Your task to perform on an android device: set the timer Image 0: 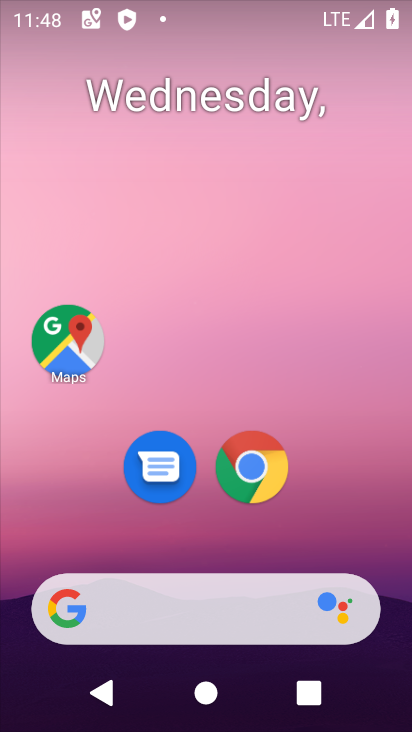
Step 0: drag from (182, 585) to (295, 149)
Your task to perform on an android device: set the timer Image 1: 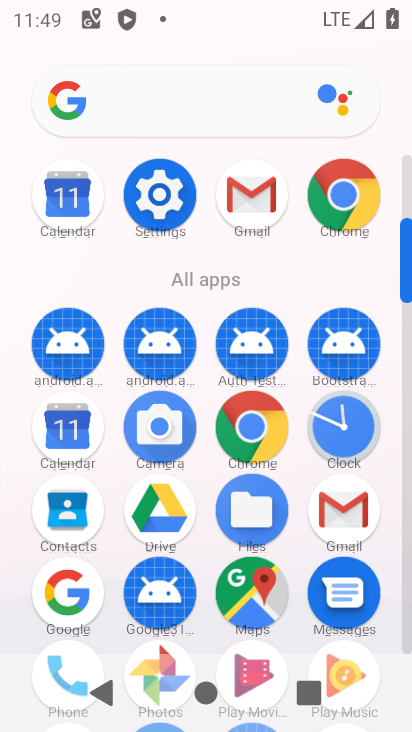
Step 1: click (348, 445)
Your task to perform on an android device: set the timer Image 2: 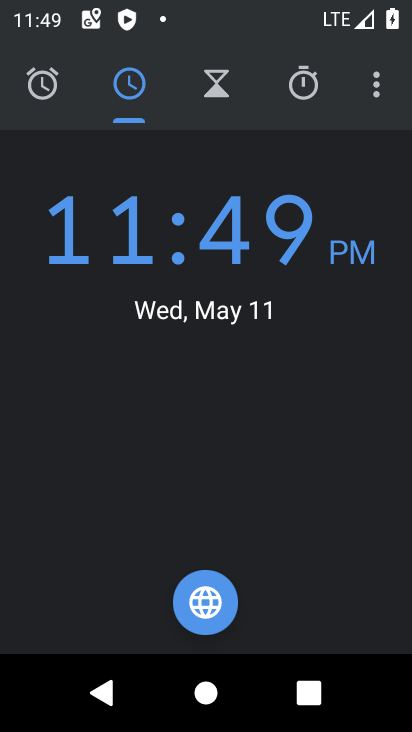
Step 2: click (213, 94)
Your task to perform on an android device: set the timer Image 3: 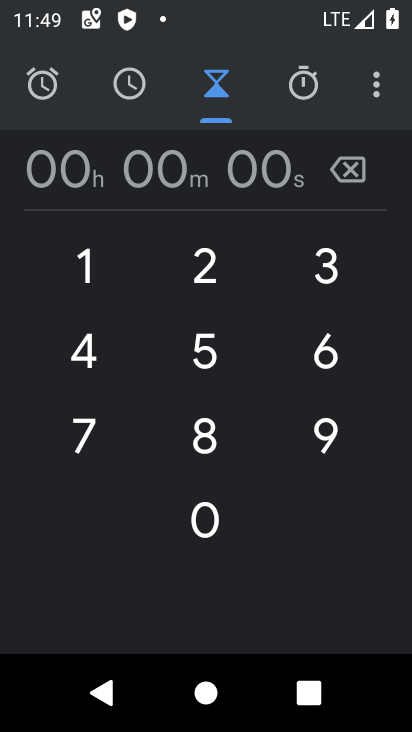
Step 3: click (90, 281)
Your task to perform on an android device: set the timer Image 4: 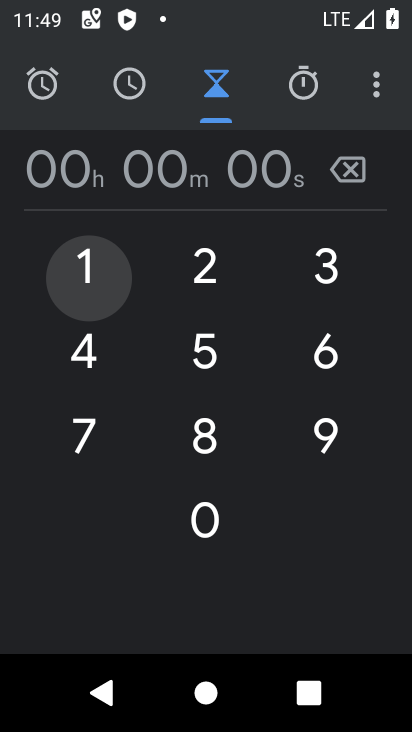
Step 4: click (90, 281)
Your task to perform on an android device: set the timer Image 5: 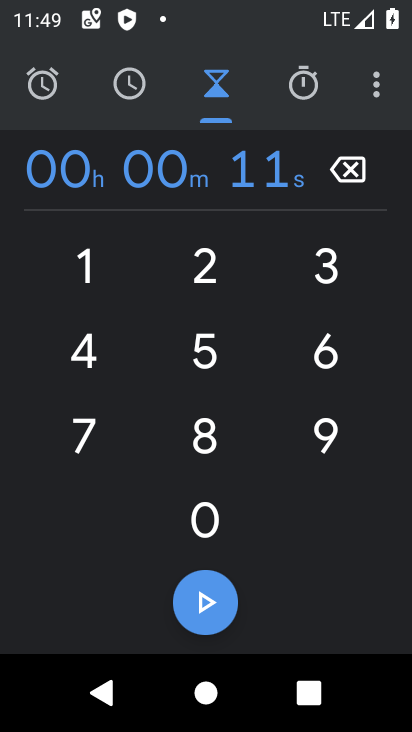
Step 5: click (90, 281)
Your task to perform on an android device: set the timer Image 6: 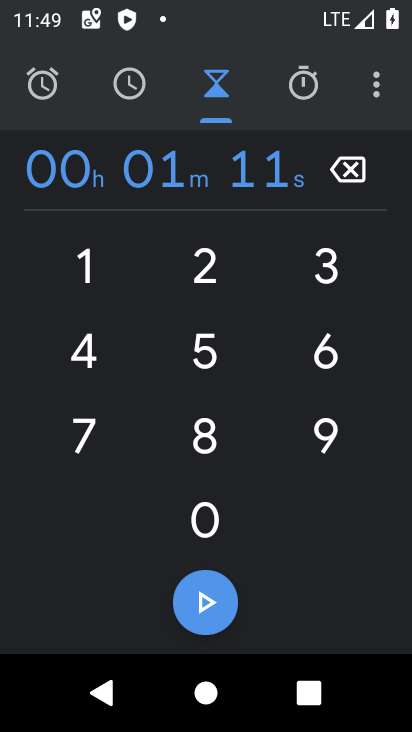
Step 6: click (205, 595)
Your task to perform on an android device: set the timer Image 7: 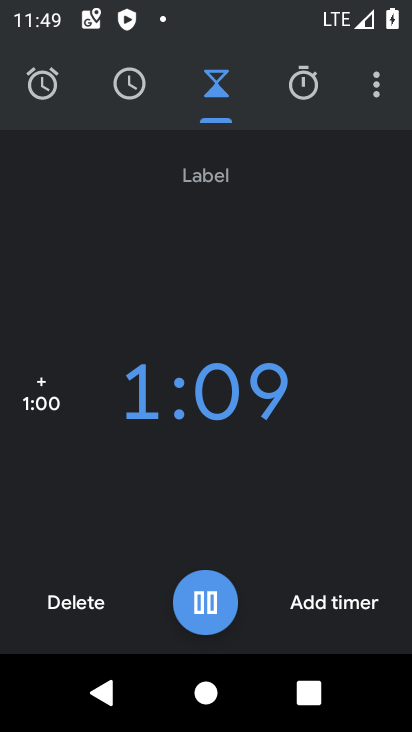
Step 7: click (205, 595)
Your task to perform on an android device: set the timer Image 8: 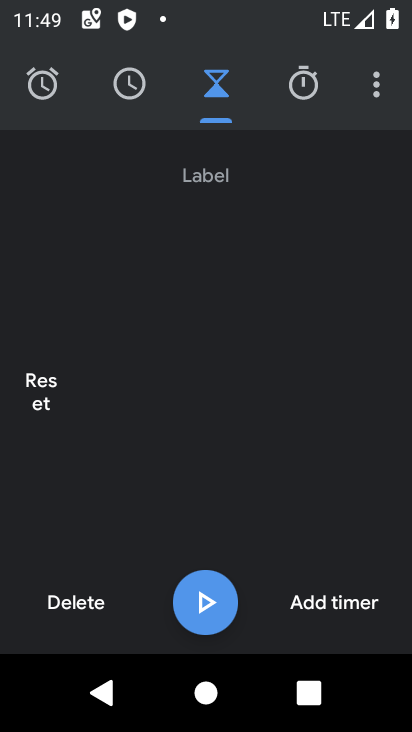
Step 8: task complete